Your task to perform on an android device: turn off data saver in the chrome app Image 0: 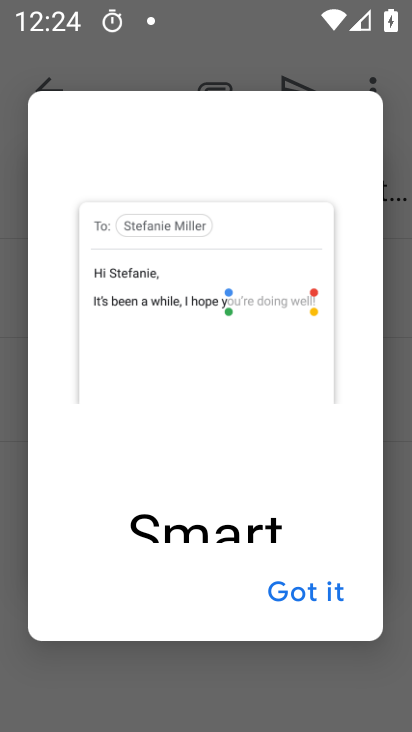
Step 0: press home button
Your task to perform on an android device: turn off data saver in the chrome app Image 1: 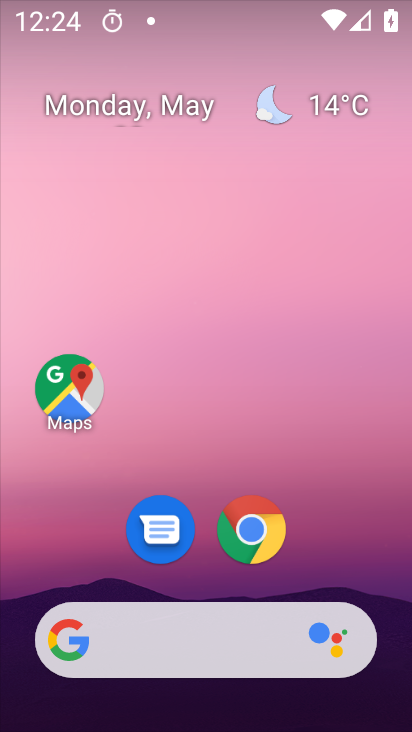
Step 1: drag from (387, 600) to (374, 209)
Your task to perform on an android device: turn off data saver in the chrome app Image 2: 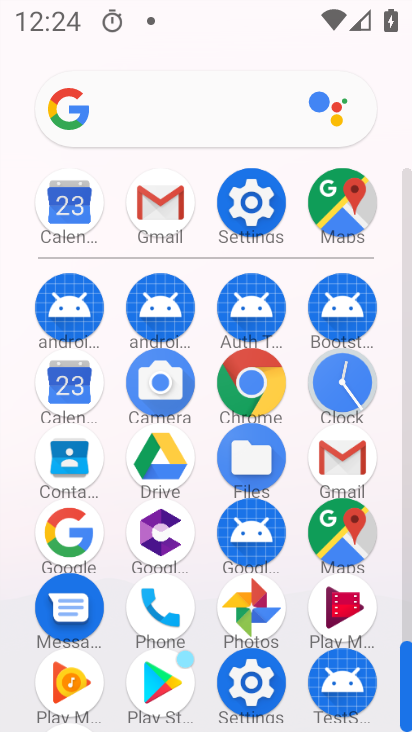
Step 2: click (255, 390)
Your task to perform on an android device: turn off data saver in the chrome app Image 3: 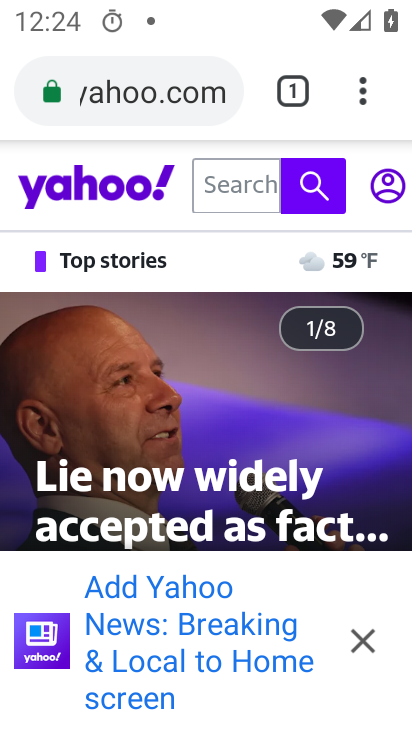
Step 3: click (364, 98)
Your task to perform on an android device: turn off data saver in the chrome app Image 4: 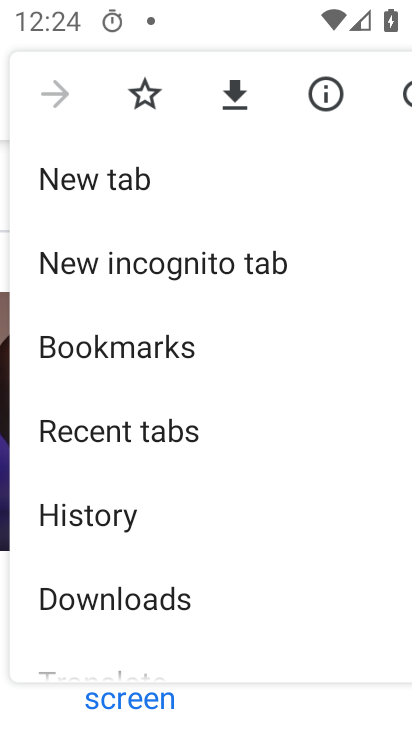
Step 4: drag from (317, 498) to (318, 397)
Your task to perform on an android device: turn off data saver in the chrome app Image 5: 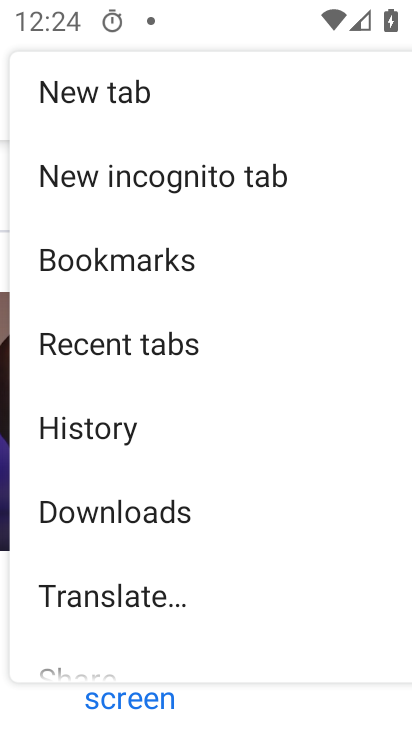
Step 5: drag from (317, 553) to (318, 423)
Your task to perform on an android device: turn off data saver in the chrome app Image 6: 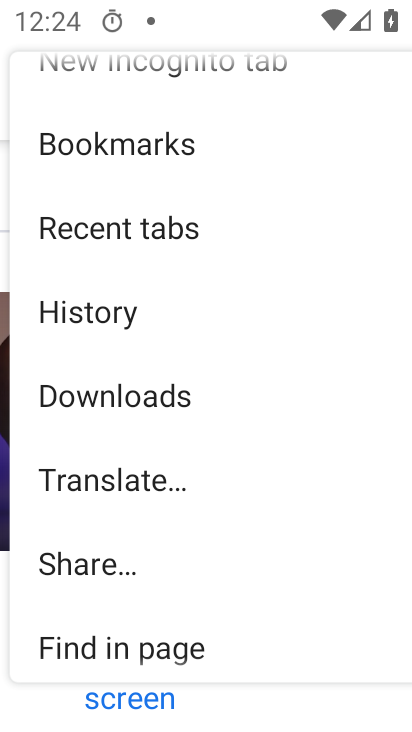
Step 6: drag from (320, 554) to (323, 446)
Your task to perform on an android device: turn off data saver in the chrome app Image 7: 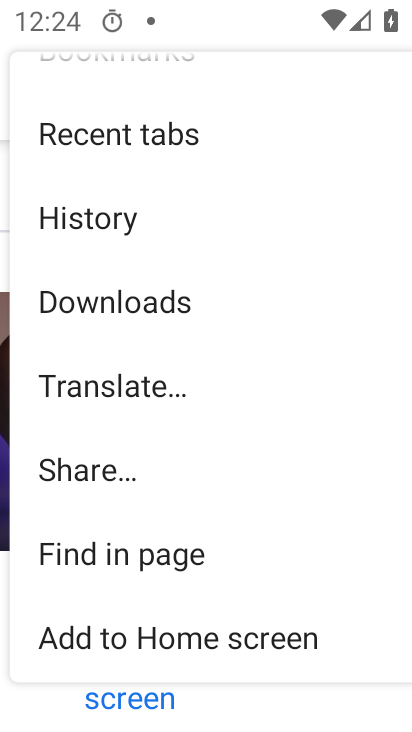
Step 7: drag from (307, 580) to (317, 465)
Your task to perform on an android device: turn off data saver in the chrome app Image 8: 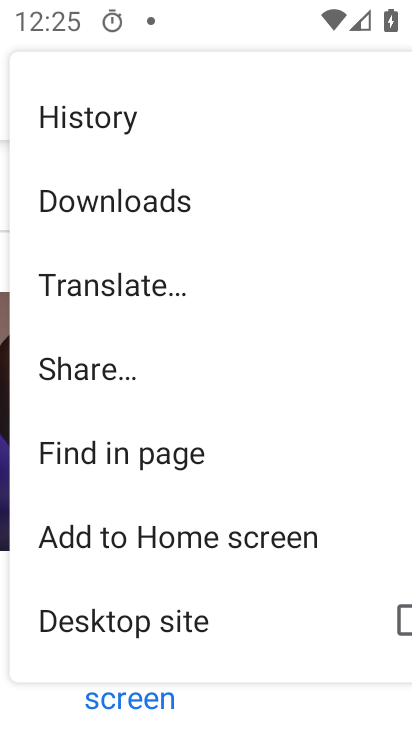
Step 8: drag from (321, 610) to (313, 481)
Your task to perform on an android device: turn off data saver in the chrome app Image 9: 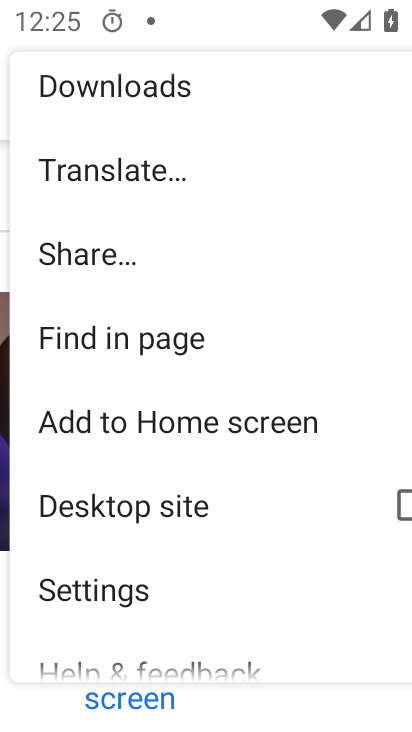
Step 9: drag from (288, 616) to (286, 472)
Your task to perform on an android device: turn off data saver in the chrome app Image 10: 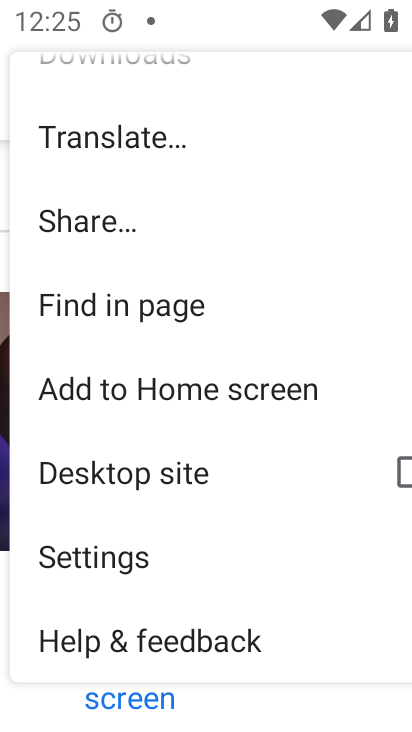
Step 10: click (118, 570)
Your task to perform on an android device: turn off data saver in the chrome app Image 11: 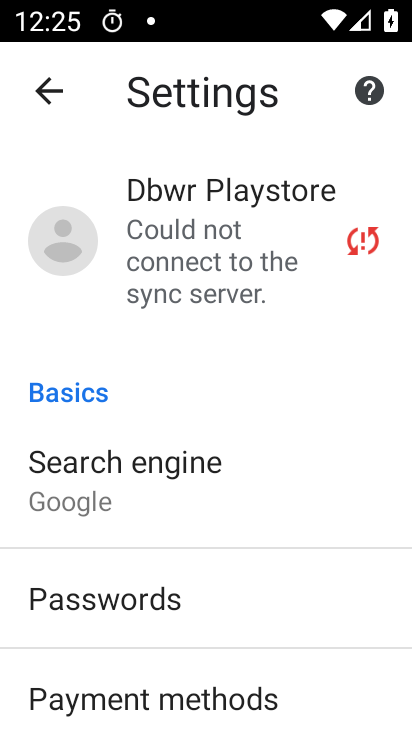
Step 11: drag from (354, 621) to (346, 535)
Your task to perform on an android device: turn off data saver in the chrome app Image 12: 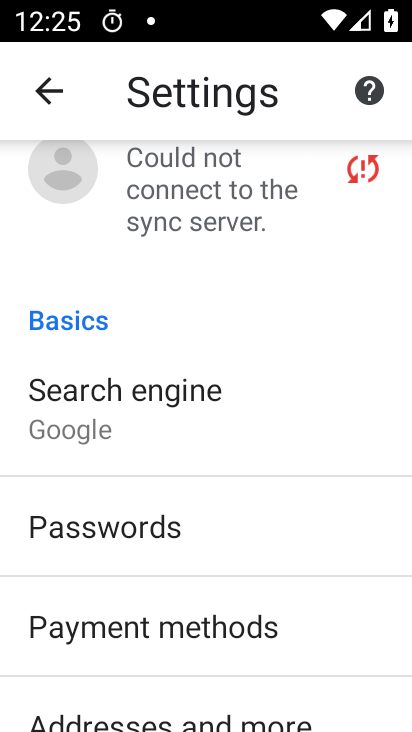
Step 12: drag from (343, 639) to (343, 556)
Your task to perform on an android device: turn off data saver in the chrome app Image 13: 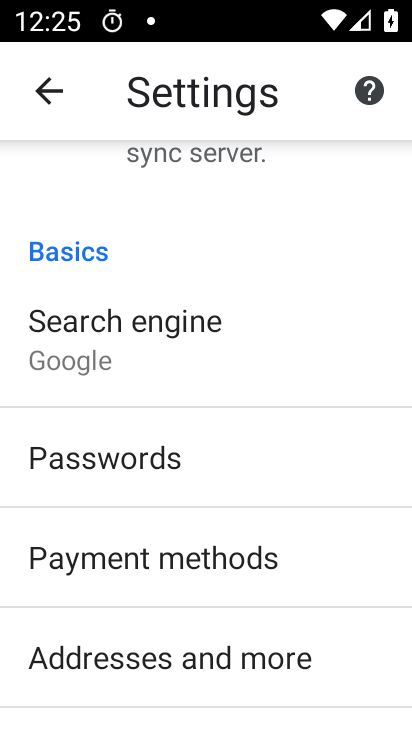
Step 13: drag from (345, 638) to (359, 568)
Your task to perform on an android device: turn off data saver in the chrome app Image 14: 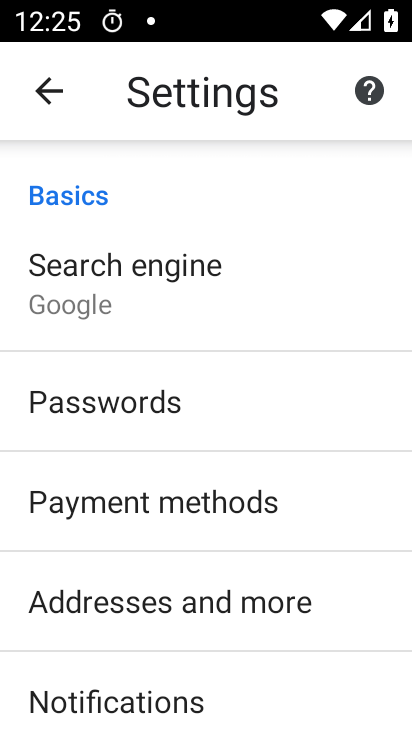
Step 14: drag from (363, 613) to (370, 531)
Your task to perform on an android device: turn off data saver in the chrome app Image 15: 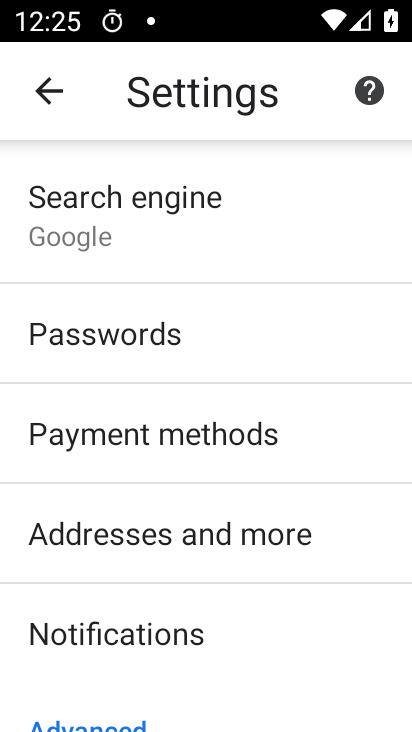
Step 15: drag from (354, 654) to (359, 574)
Your task to perform on an android device: turn off data saver in the chrome app Image 16: 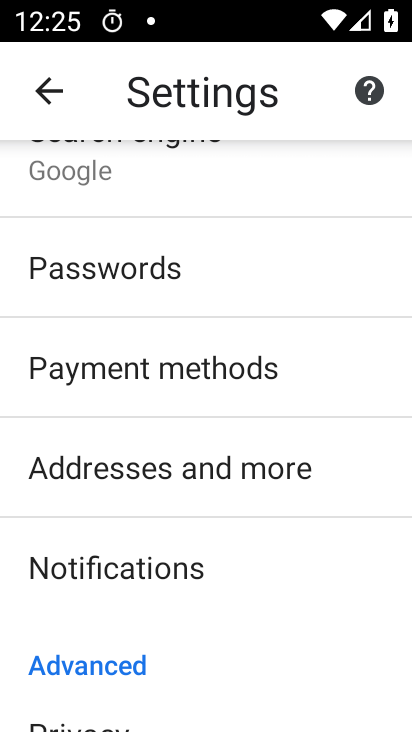
Step 16: drag from (343, 679) to (350, 571)
Your task to perform on an android device: turn off data saver in the chrome app Image 17: 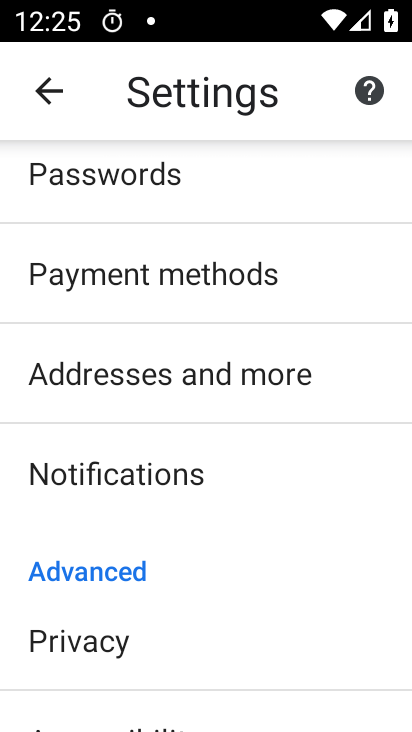
Step 17: drag from (323, 616) to (331, 551)
Your task to perform on an android device: turn off data saver in the chrome app Image 18: 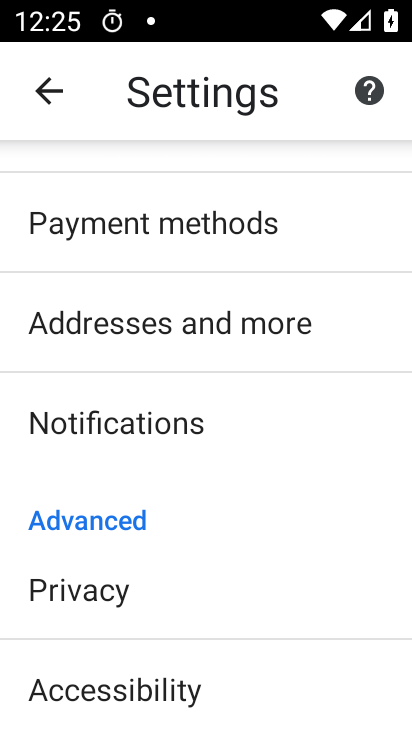
Step 18: drag from (330, 675) to (329, 581)
Your task to perform on an android device: turn off data saver in the chrome app Image 19: 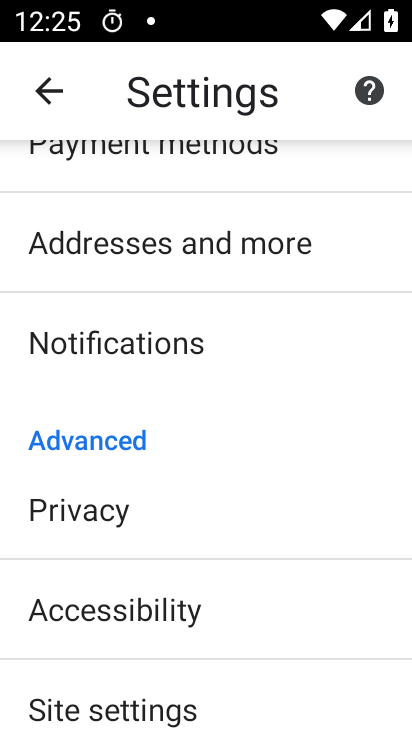
Step 19: drag from (330, 675) to (328, 607)
Your task to perform on an android device: turn off data saver in the chrome app Image 20: 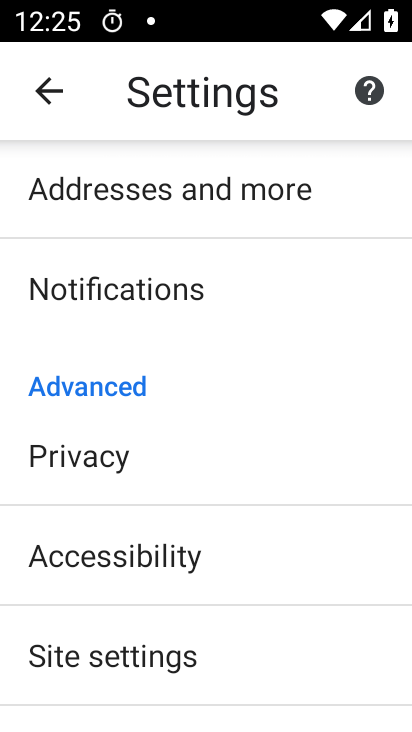
Step 20: drag from (319, 656) to (317, 583)
Your task to perform on an android device: turn off data saver in the chrome app Image 21: 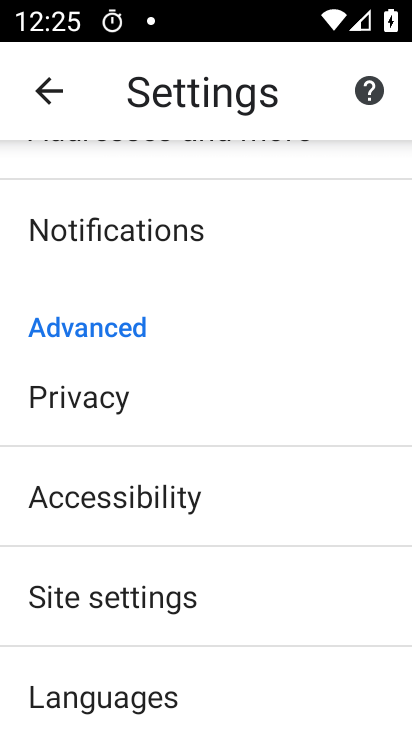
Step 21: drag from (316, 664) to (315, 572)
Your task to perform on an android device: turn off data saver in the chrome app Image 22: 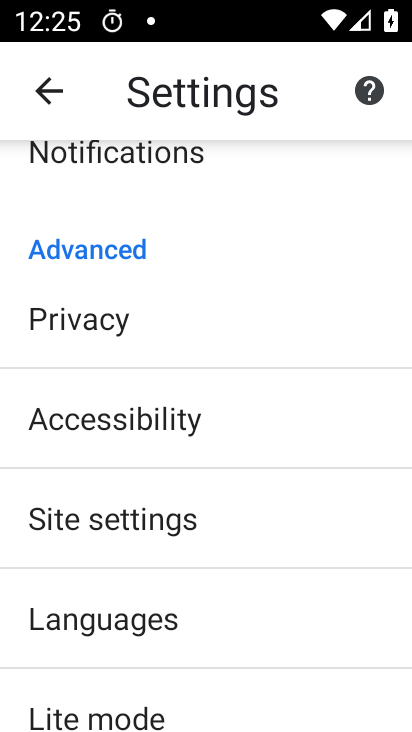
Step 22: drag from (298, 644) to (304, 530)
Your task to perform on an android device: turn off data saver in the chrome app Image 23: 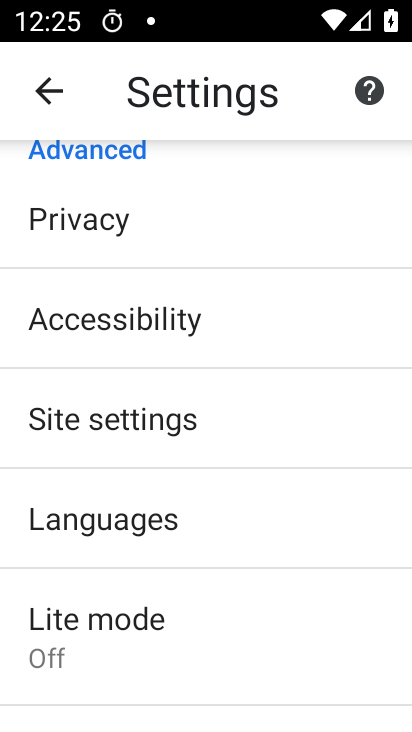
Step 23: click (297, 634)
Your task to perform on an android device: turn off data saver in the chrome app Image 24: 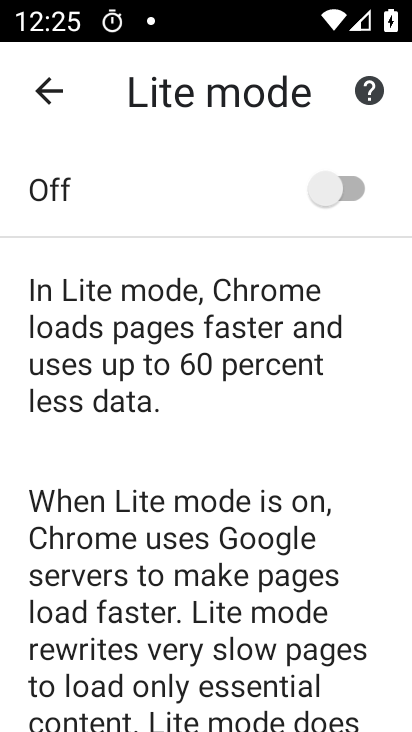
Step 24: task complete